Your task to perform on an android device: What's the price of the new iPhone Image 0: 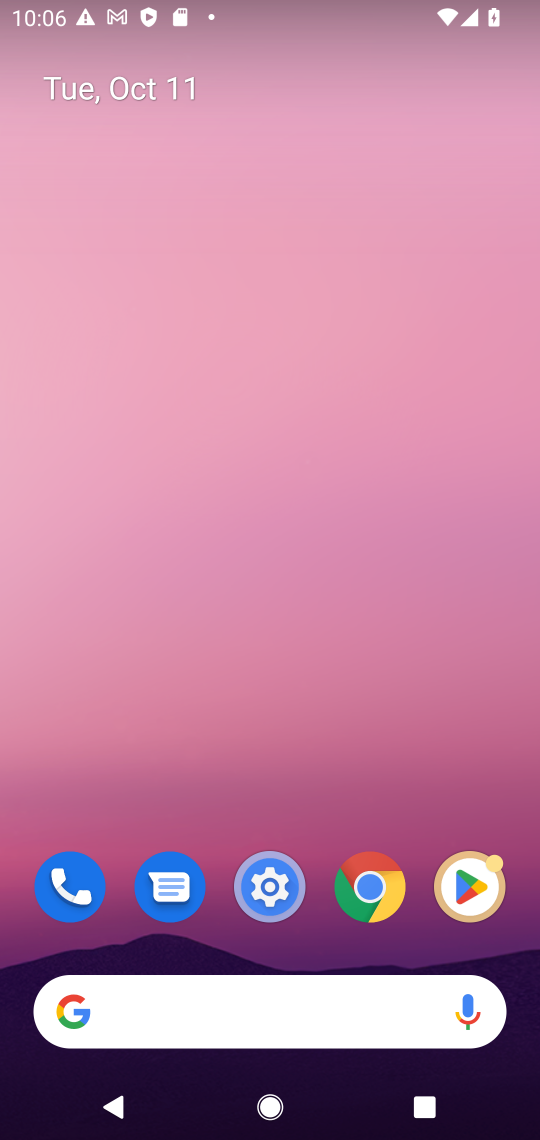
Step 0: press home button
Your task to perform on an android device: What's the price of the new iPhone Image 1: 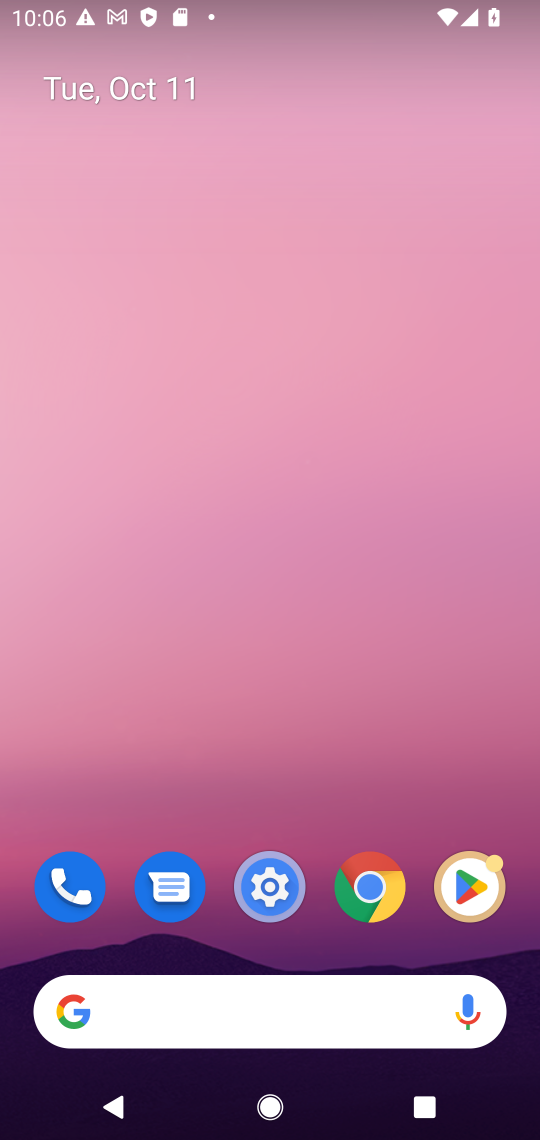
Step 1: click (147, 1015)
Your task to perform on an android device: What's the price of the new iPhone Image 2: 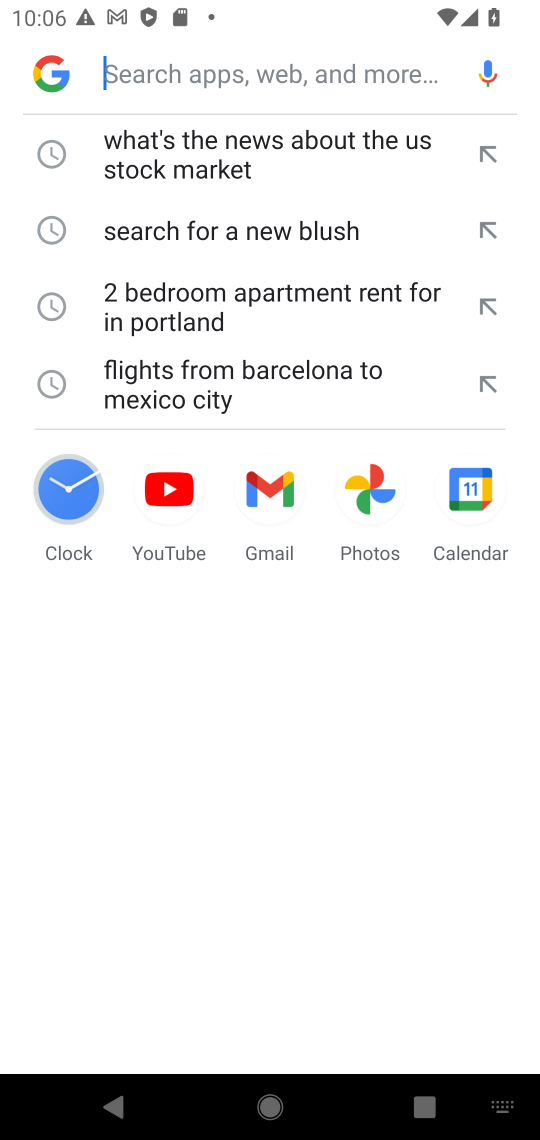
Step 2: type "What's the price of the new iPhone"
Your task to perform on an android device: What's the price of the new iPhone Image 3: 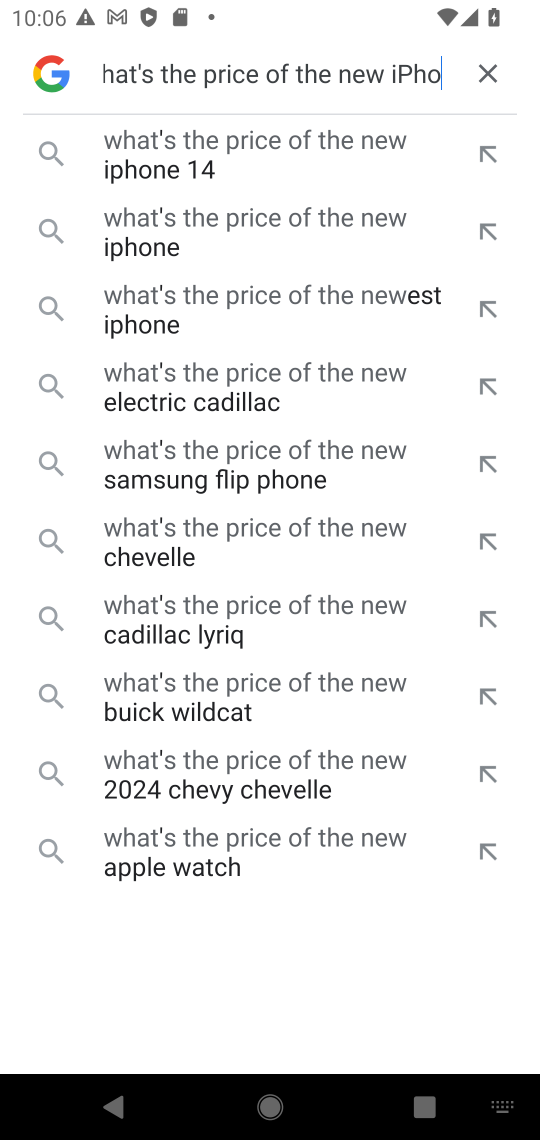
Step 3: press enter
Your task to perform on an android device: What's the price of the new iPhone Image 4: 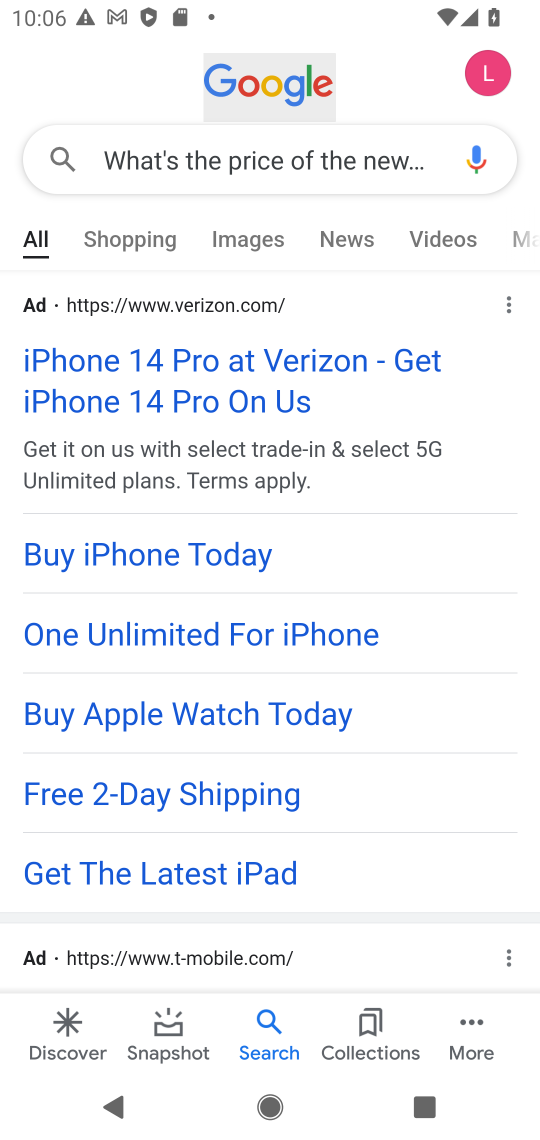
Step 4: click (231, 388)
Your task to perform on an android device: What's the price of the new iPhone Image 5: 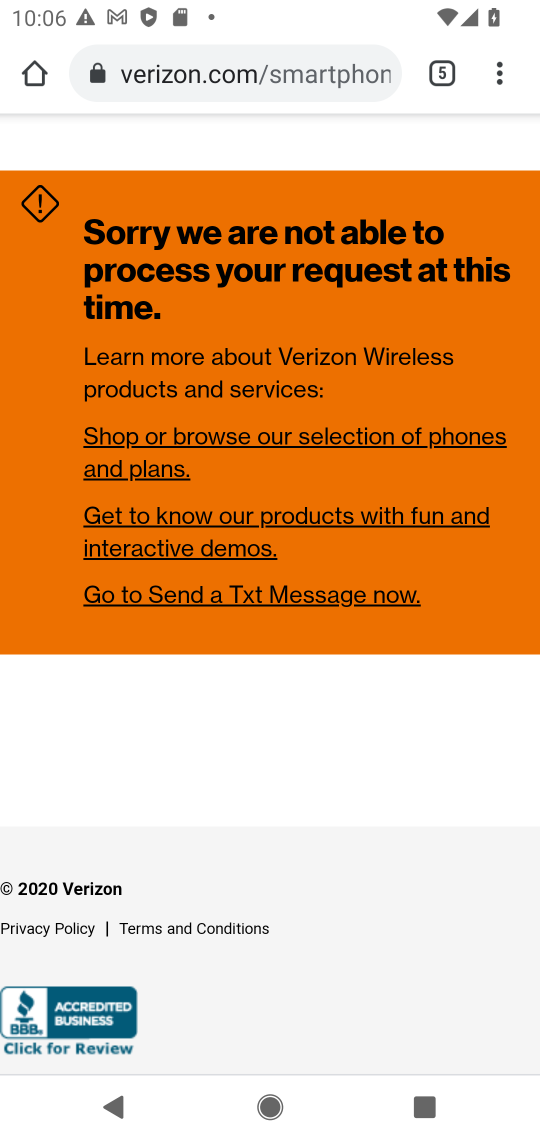
Step 5: drag from (406, 895) to (445, 535)
Your task to perform on an android device: What's the price of the new iPhone Image 6: 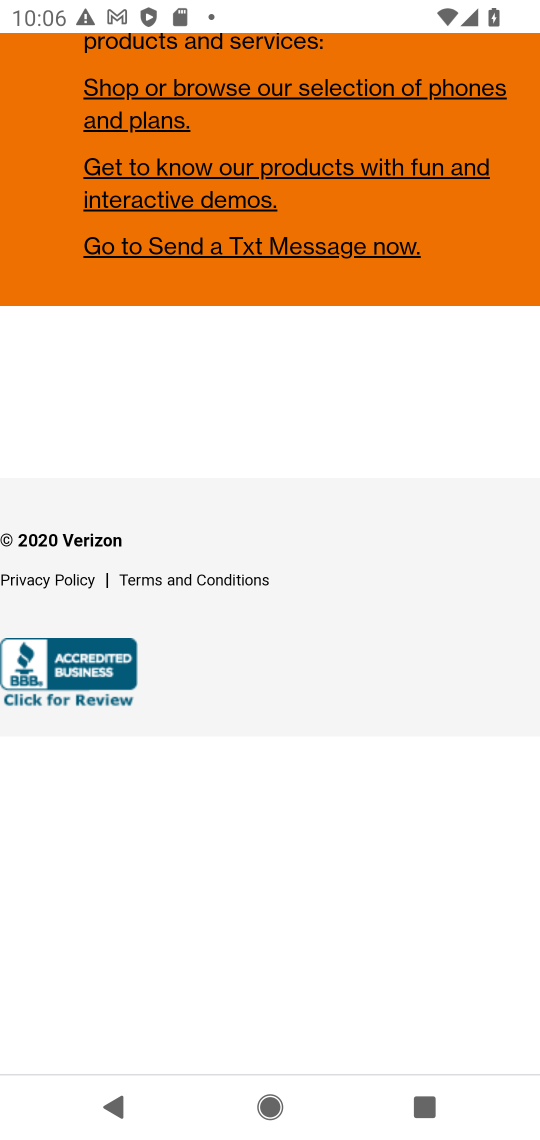
Step 6: drag from (375, 909) to (403, 514)
Your task to perform on an android device: What's the price of the new iPhone Image 7: 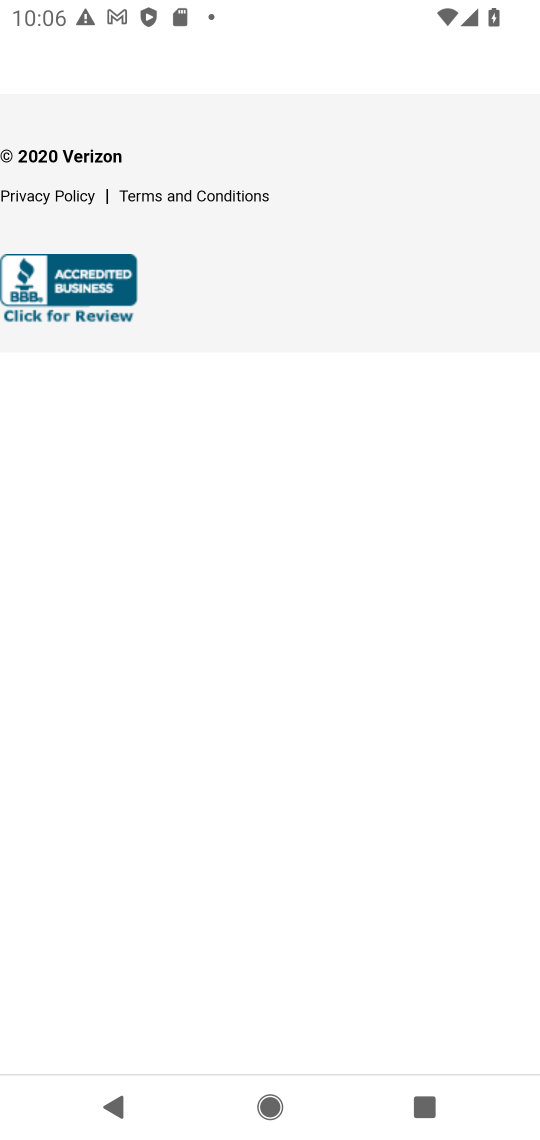
Step 7: drag from (320, 891) to (317, 367)
Your task to perform on an android device: What's the price of the new iPhone Image 8: 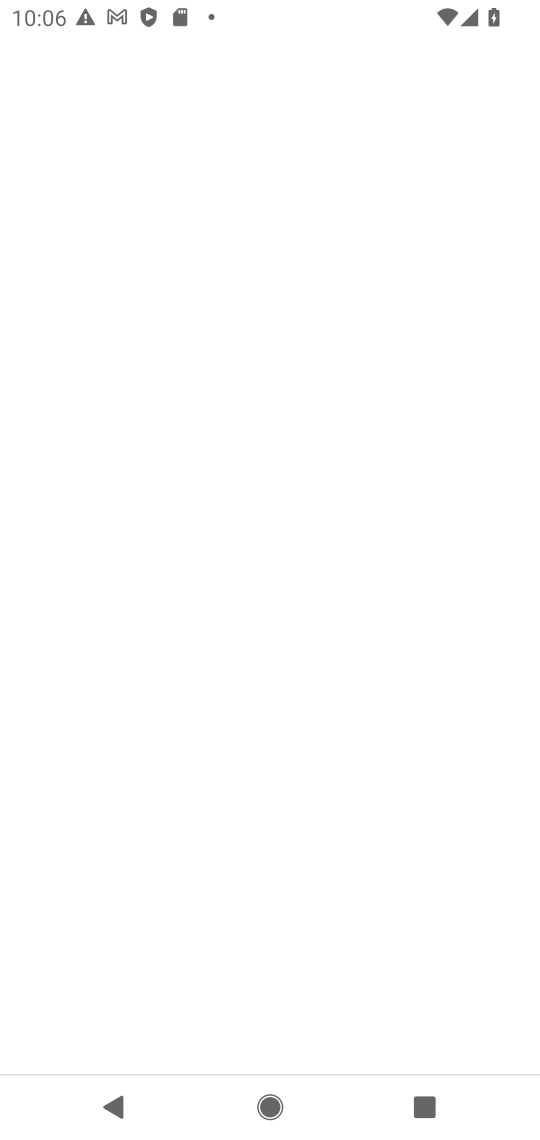
Step 8: drag from (385, 232) to (357, 1033)
Your task to perform on an android device: What's the price of the new iPhone Image 9: 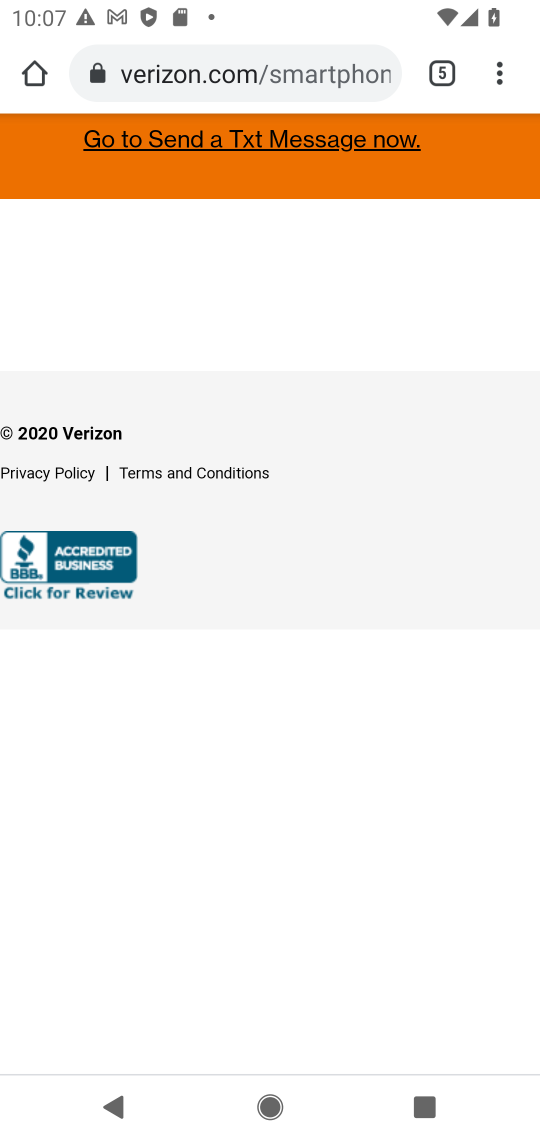
Step 9: drag from (376, 259) to (341, 849)
Your task to perform on an android device: What's the price of the new iPhone Image 10: 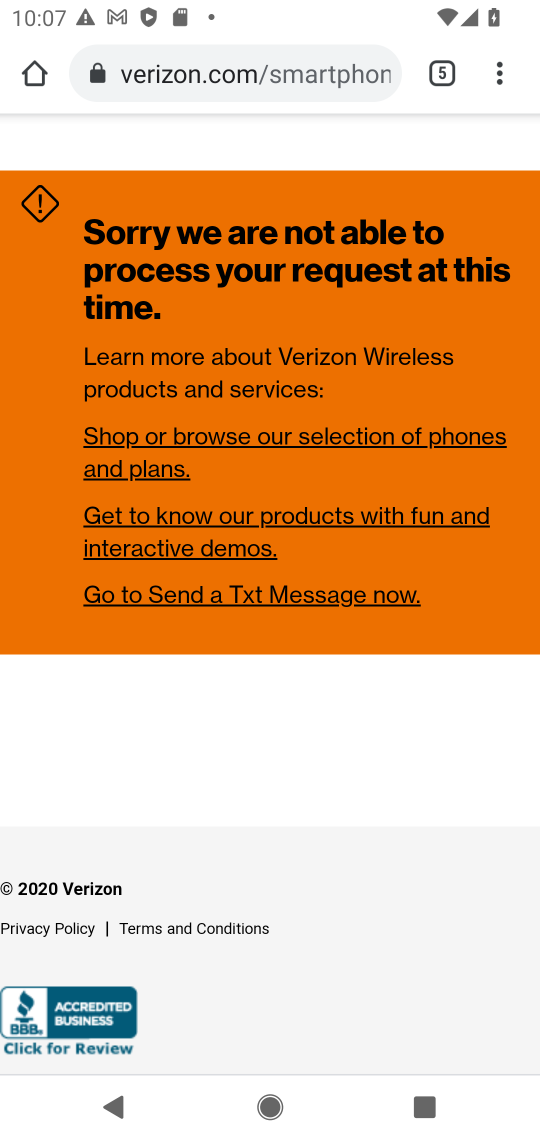
Step 10: press back button
Your task to perform on an android device: What's the price of the new iPhone Image 11: 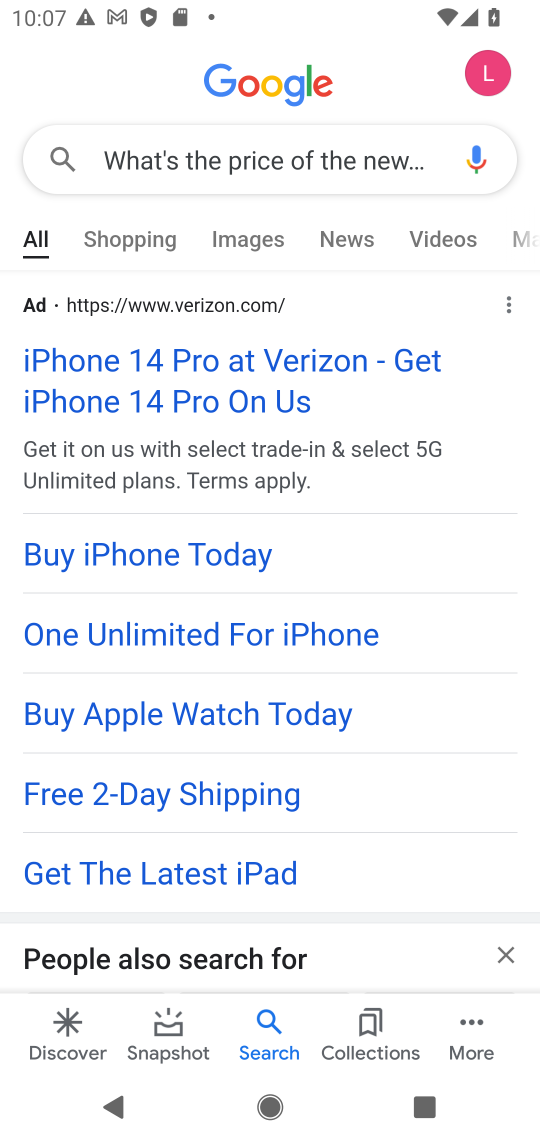
Step 11: drag from (397, 805) to (392, 328)
Your task to perform on an android device: What's the price of the new iPhone Image 12: 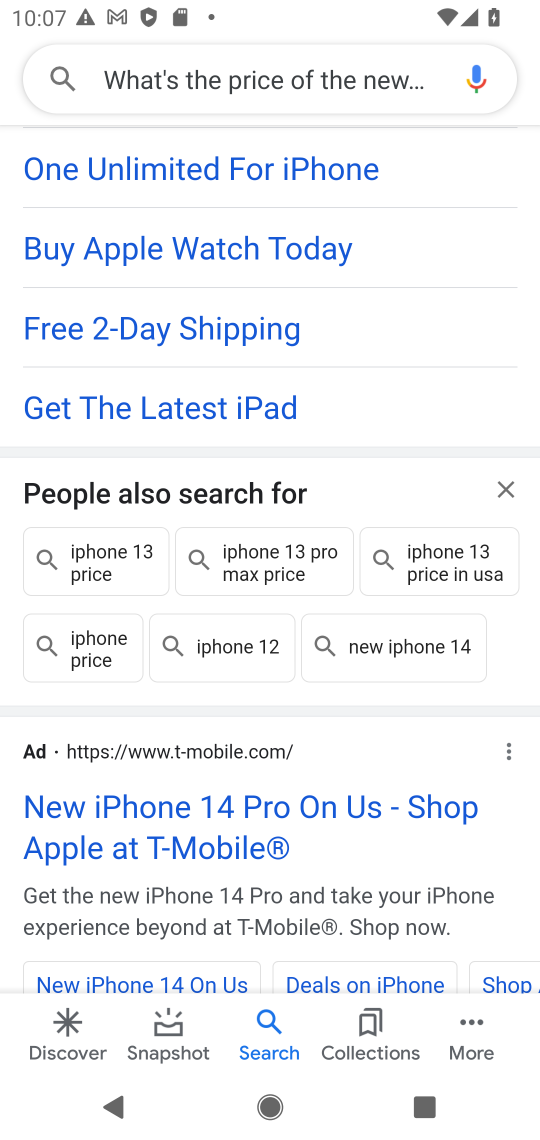
Step 12: click (275, 829)
Your task to perform on an android device: What's the price of the new iPhone Image 13: 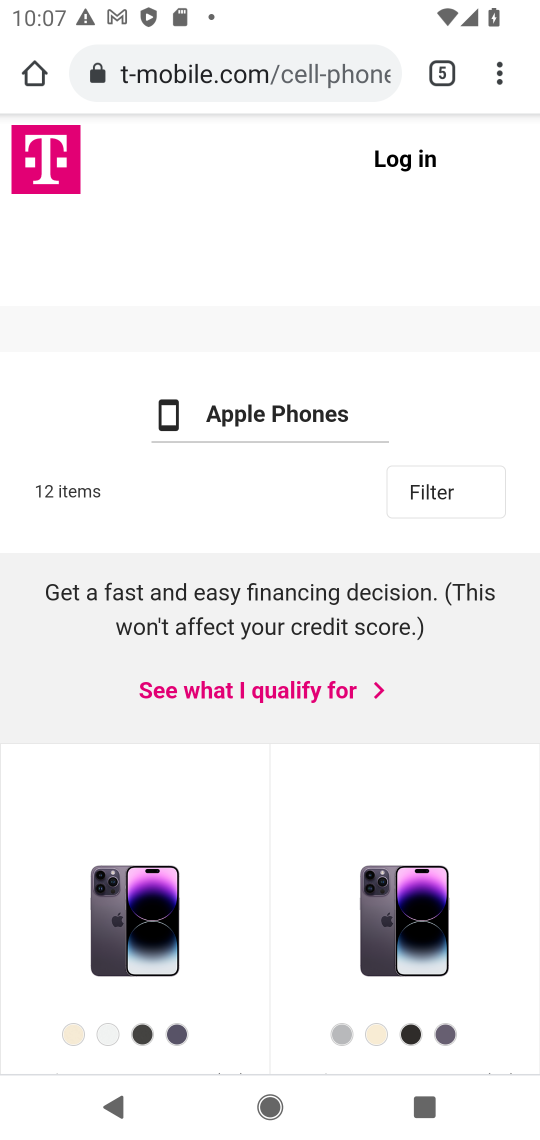
Step 13: task complete